Your task to perform on an android device: Open network settings Image 0: 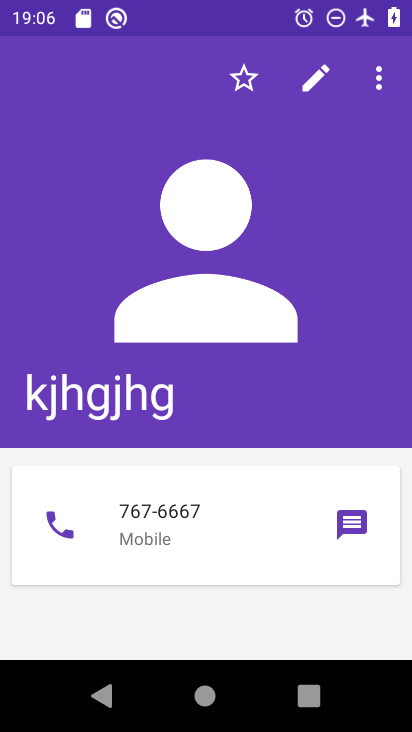
Step 0: press home button
Your task to perform on an android device: Open network settings Image 1: 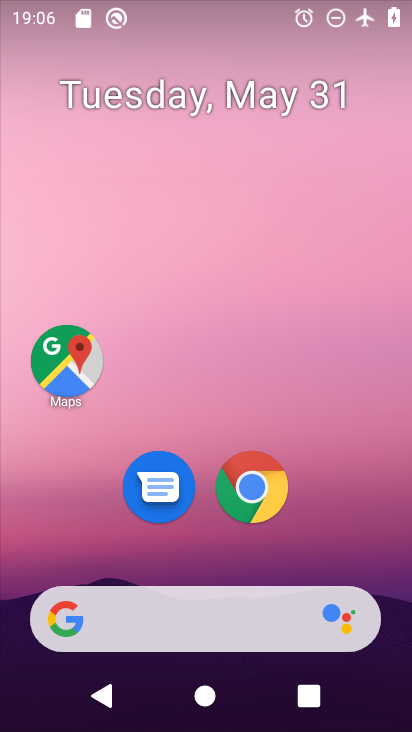
Step 1: drag from (354, 521) to (184, 30)
Your task to perform on an android device: Open network settings Image 2: 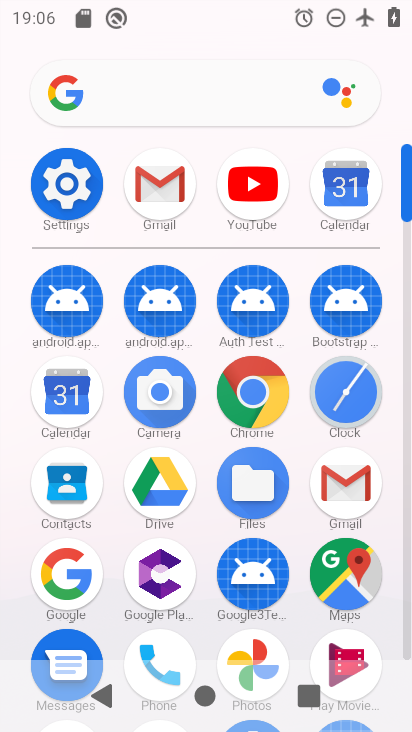
Step 2: click (69, 178)
Your task to perform on an android device: Open network settings Image 3: 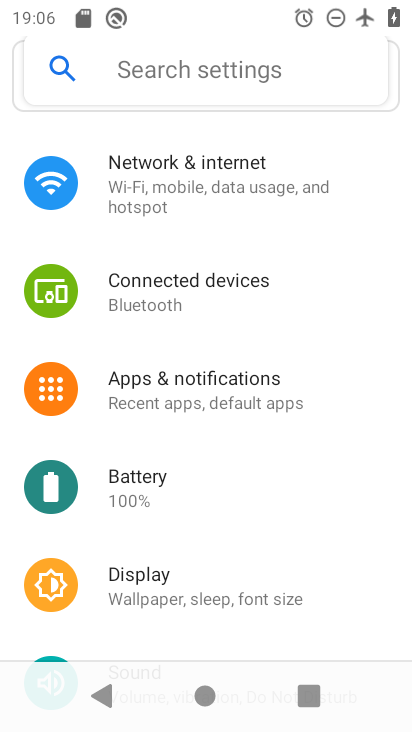
Step 3: click (184, 170)
Your task to perform on an android device: Open network settings Image 4: 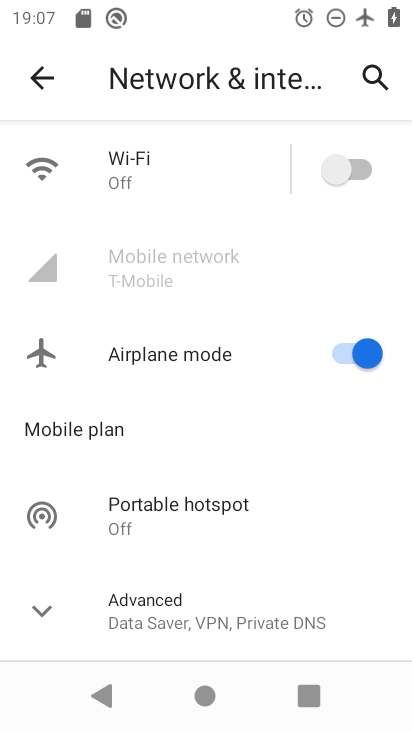
Step 4: task complete